Your task to perform on an android device: toggle sleep mode Image 0: 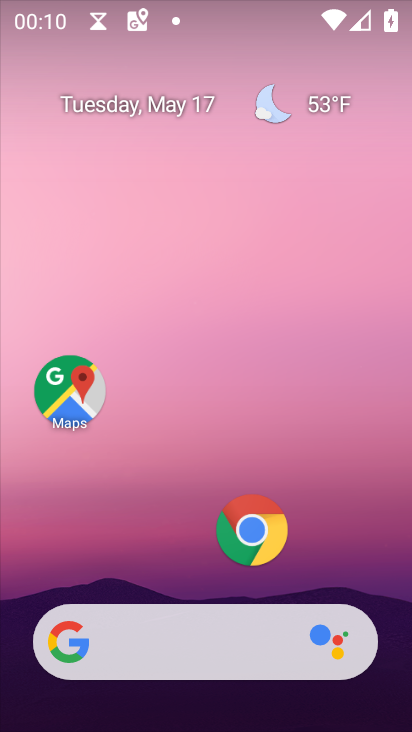
Step 0: drag from (154, 537) to (156, 172)
Your task to perform on an android device: toggle sleep mode Image 1: 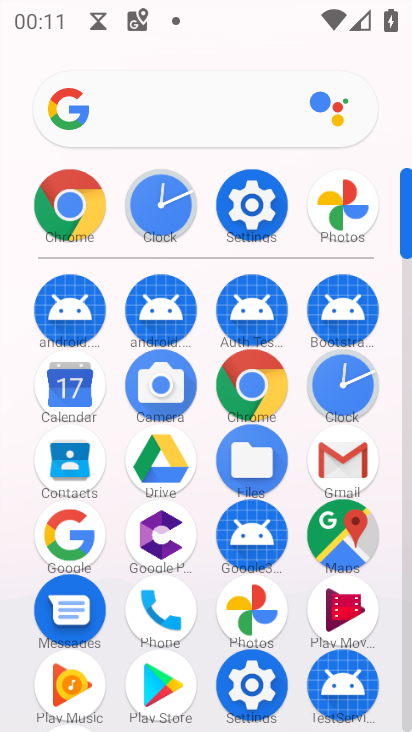
Step 1: click (266, 214)
Your task to perform on an android device: toggle sleep mode Image 2: 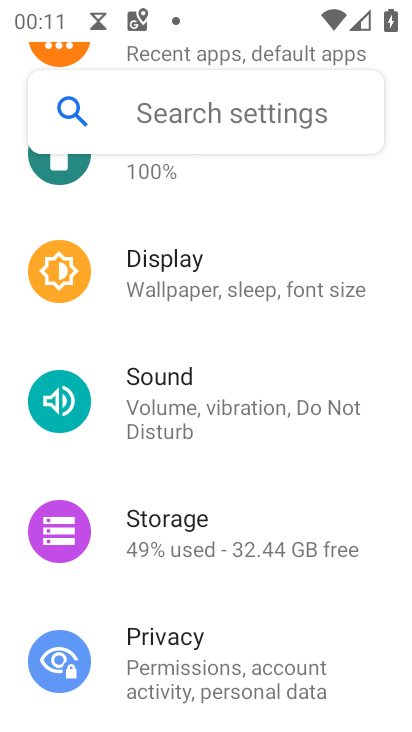
Step 2: click (240, 280)
Your task to perform on an android device: toggle sleep mode Image 3: 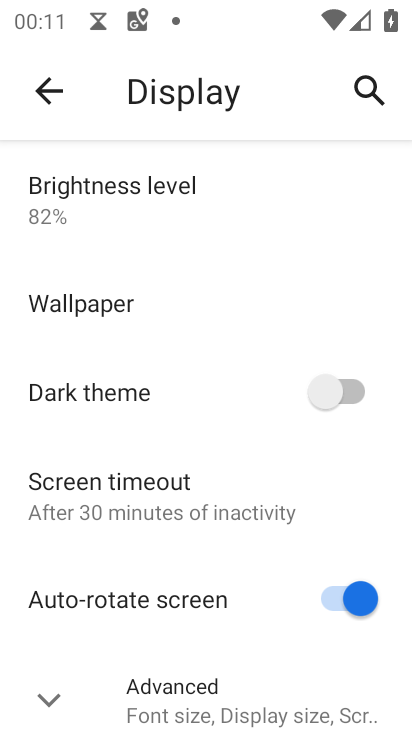
Step 3: click (259, 710)
Your task to perform on an android device: toggle sleep mode Image 4: 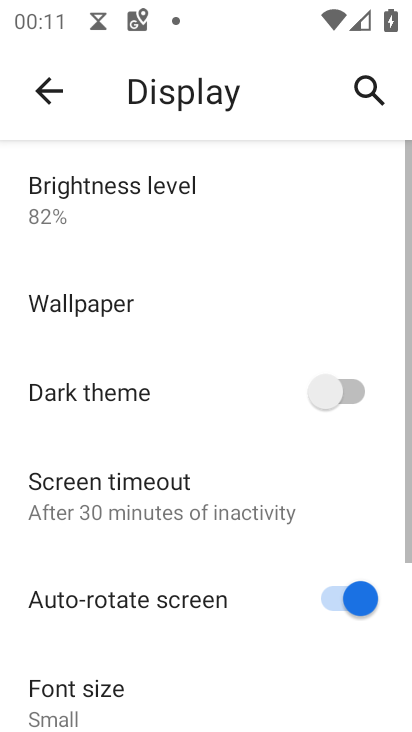
Step 4: task complete